Your task to perform on an android device: change timer sound Image 0: 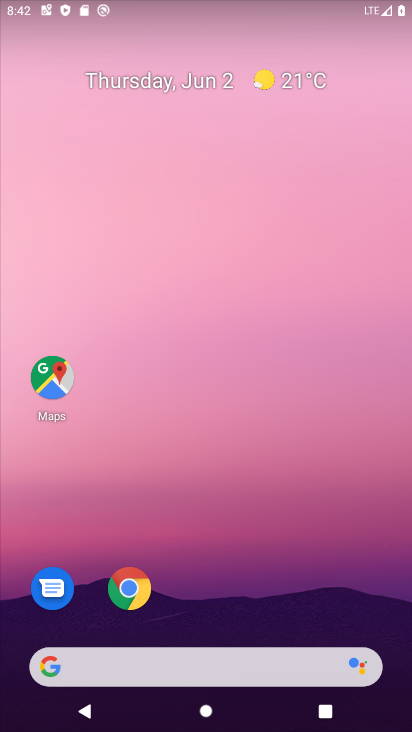
Step 0: drag from (204, 615) to (215, 251)
Your task to perform on an android device: change timer sound Image 1: 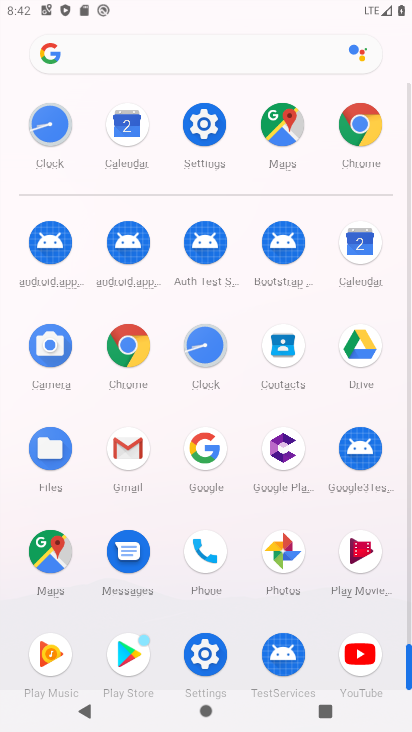
Step 1: click (213, 351)
Your task to perform on an android device: change timer sound Image 2: 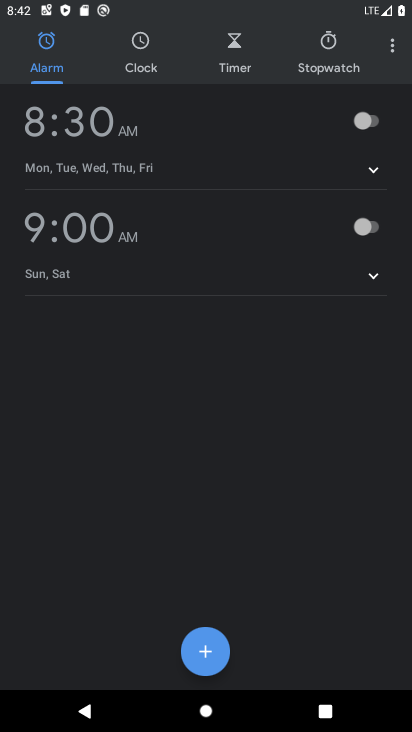
Step 2: click (392, 58)
Your task to perform on an android device: change timer sound Image 3: 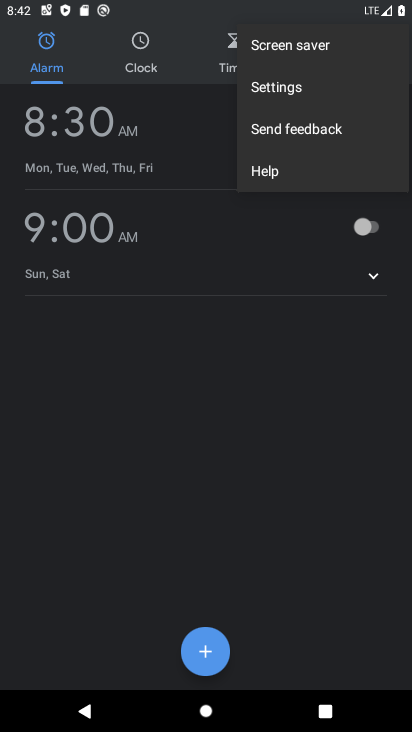
Step 3: click (279, 91)
Your task to perform on an android device: change timer sound Image 4: 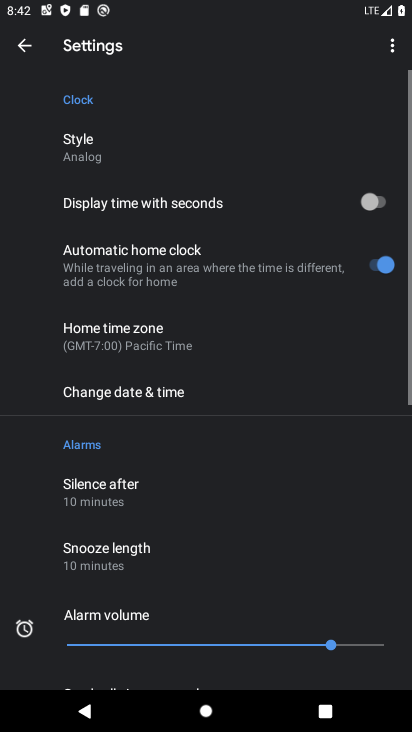
Step 4: drag from (159, 504) to (174, 351)
Your task to perform on an android device: change timer sound Image 5: 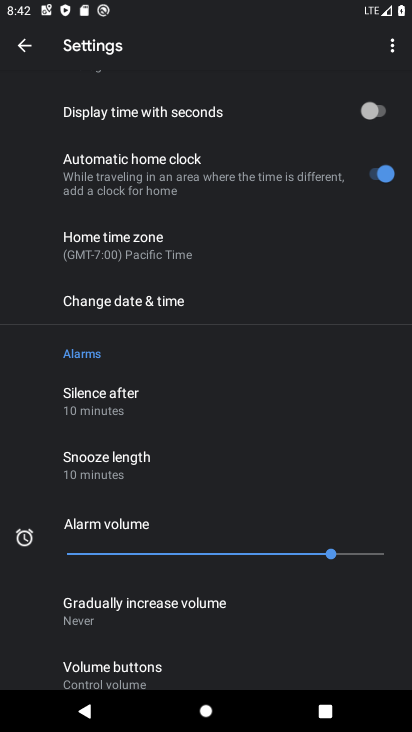
Step 5: drag from (157, 279) to (162, 236)
Your task to perform on an android device: change timer sound Image 6: 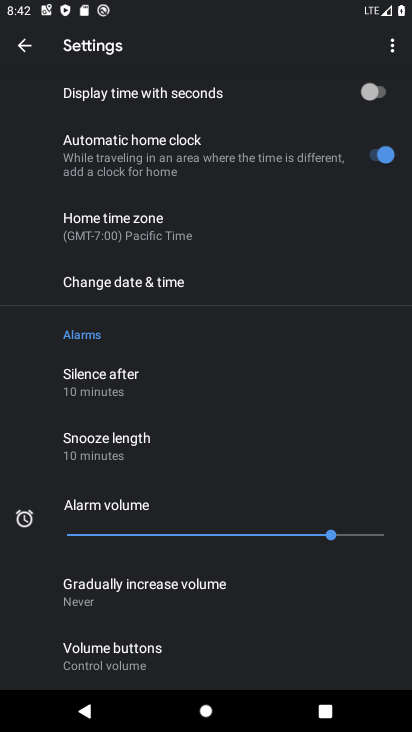
Step 6: drag from (159, 507) to (173, 242)
Your task to perform on an android device: change timer sound Image 7: 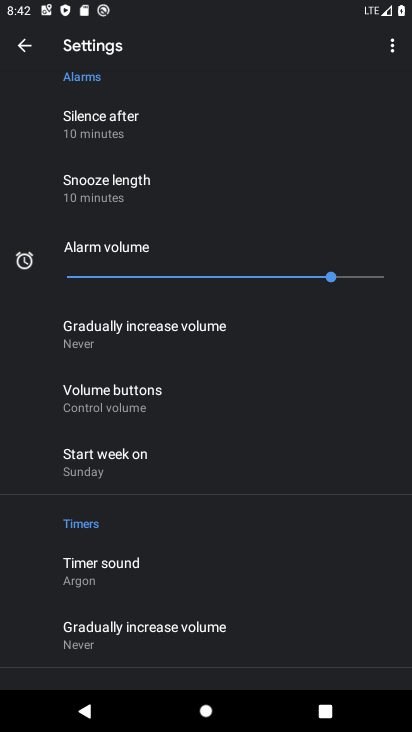
Step 7: click (136, 575)
Your task to perform on an android device: change timer sound Image 8: 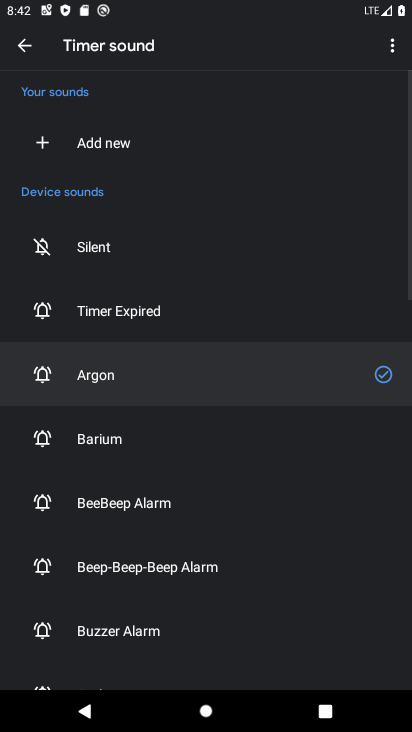
Step 8: click (132, 302)
Your task to perform on an android device: change timer sound Image 9: 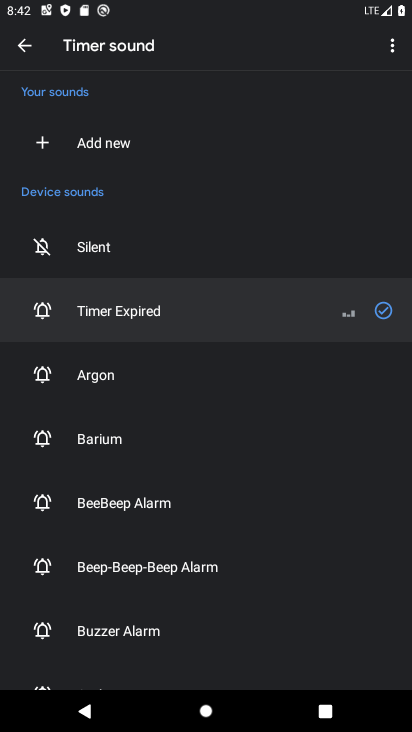
Step 9: task complete